Your task to perform on an android device: turn on priority inbox in the gmail app Image 0: 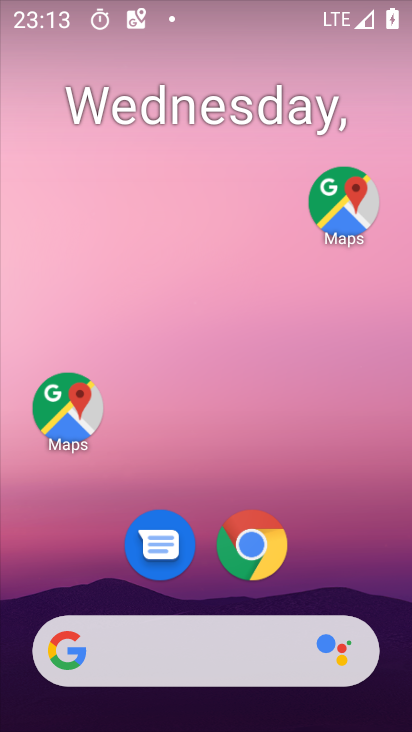
Step 0: drag from (326, 576) to (329, 32)
Your task to perform on an android device: turn on priority inbox in the gmail app Image 1: 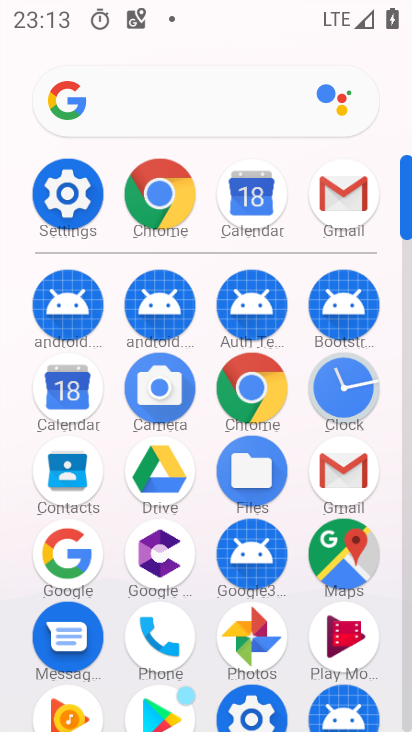
Step 1: click (332, 199)
Your task to perform on an android device: turn on priority inbox in the gmail app Image 2: 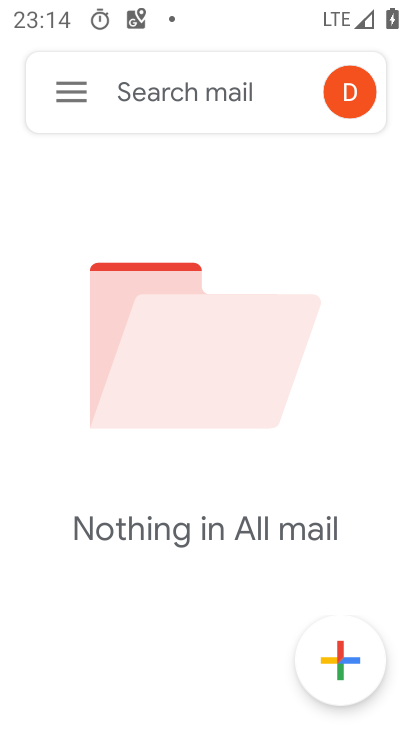
Step 2: click (62, 98)
Your task to perform on an android device: turn on priority inbox in the gmail app Image 3: 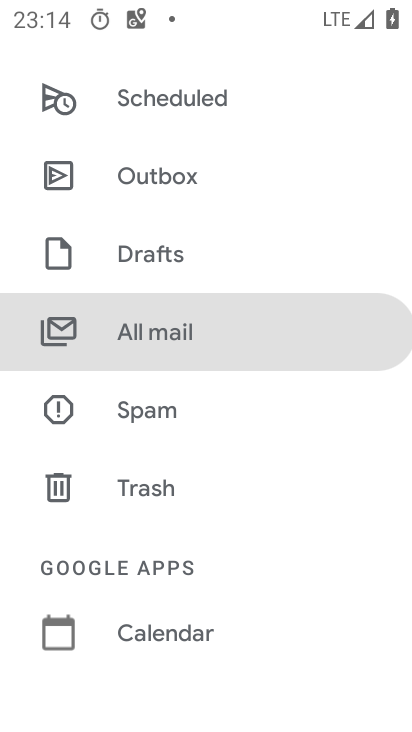
Step 3: drag from (179, 586) to (169, 316)
Your task to perform on an android device: turn on priority inbox in the gmail app Image 4: 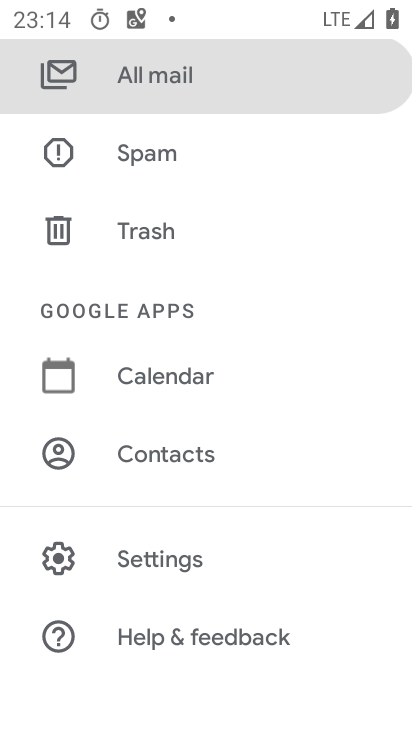
Step 4: click (185, 566)
Your task to perform on an android device: turn on priority inbox in the gmail app Image 5: 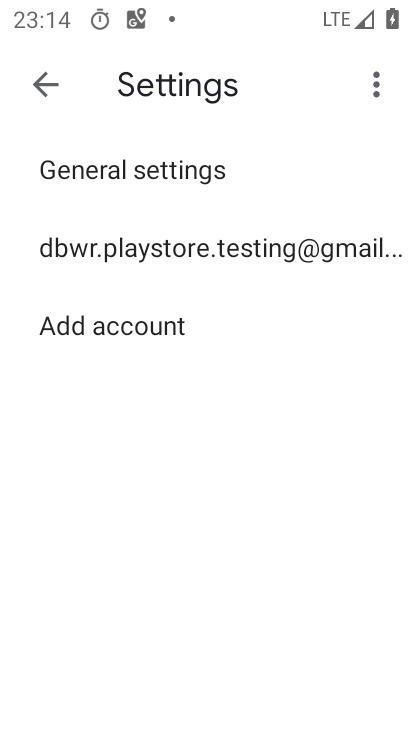
Step 5: click (176, 246)
Your task to perform on an android device: turn on priority inbox in the gmail app Image 6: 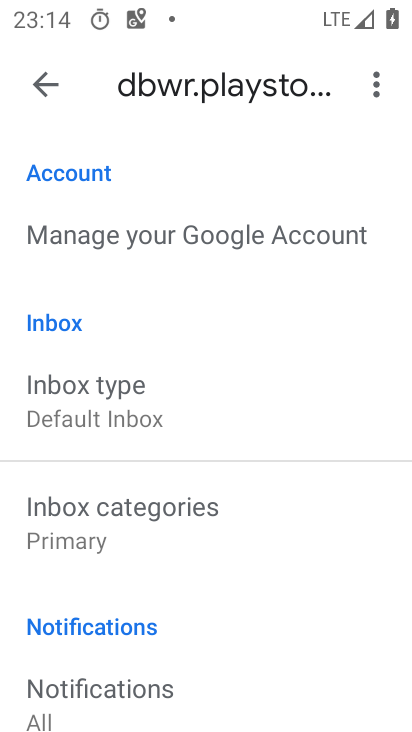
Step 6: click (93, 389)
Your task to perform on an android device: turn on priority inbox in the gmail app Image 7: 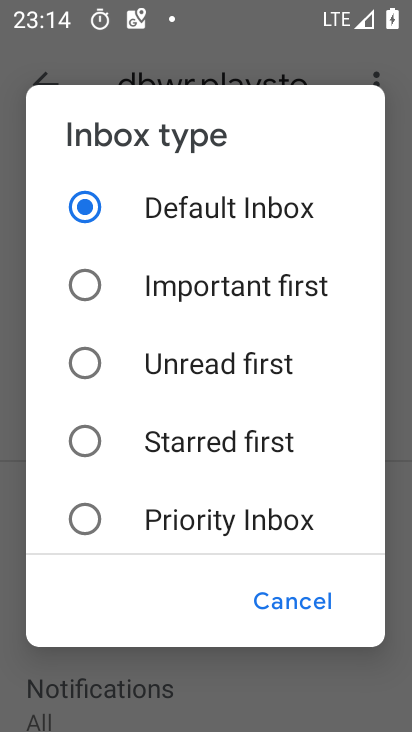
Step 7: click (251, 514)
Your task to perform on an android device: turn on priority inbox in the gmail app Image 8: 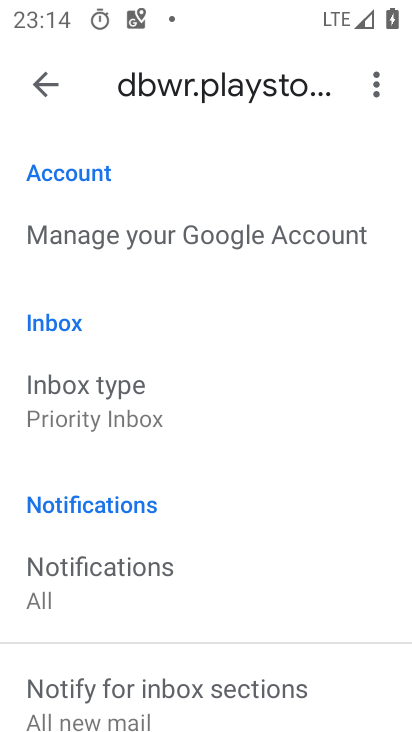
Step 8: task complete